Your task to perform on an android device: make emails show in primary in the gmail app Image 0: 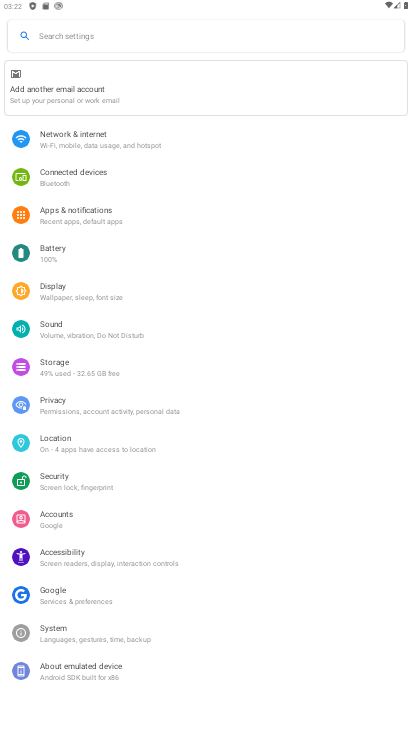
Step 0: press home button
Your task to perform on an android device: make emails show in primary in the gmail app Image 1: 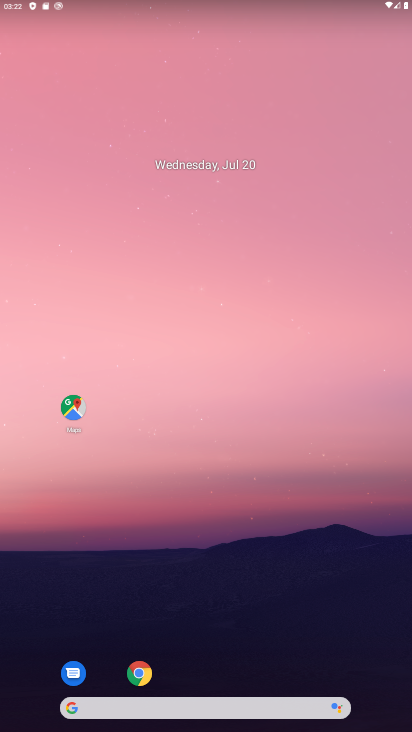
Step 1: drag from (255, 657) to (271, 45)
Your task to perform on an android device: make emails show in primary in the gmail app Image 2: 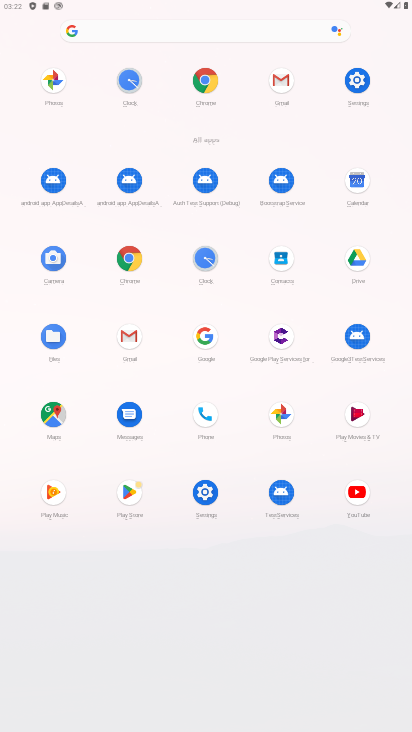
Step 2: click (122, 339)
Your task to perform on an android device: make emails show in primary in the gmail app Image 3: 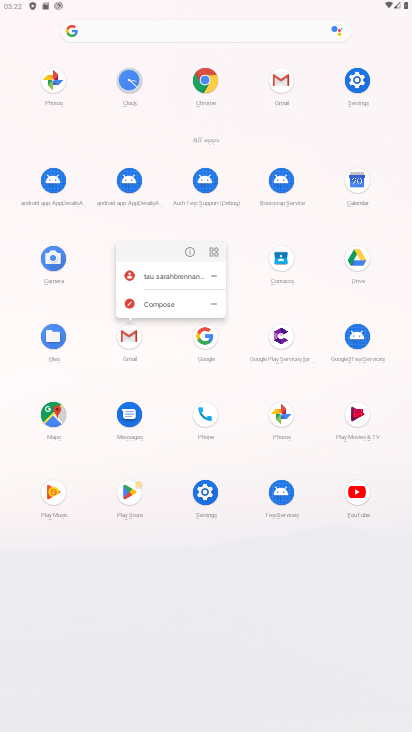
Step 3: click (137, 330)
Your task to perform on an android device: make emails show in primary in the gmail app Image 4: 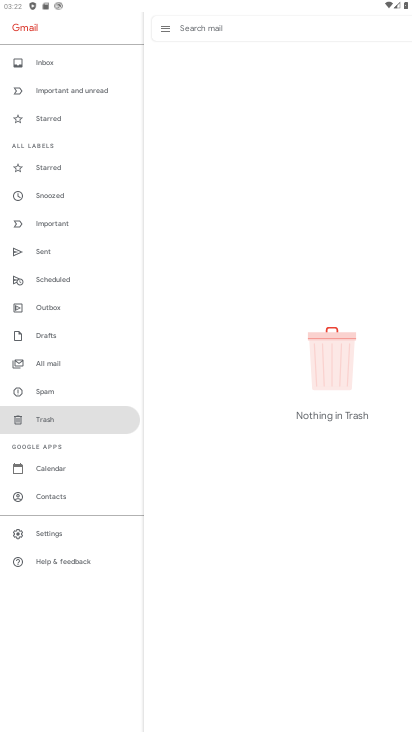
Step 4: click (70, 529)
Your task to perform on an android device: make emails show in primary in the gmail app Image 5: 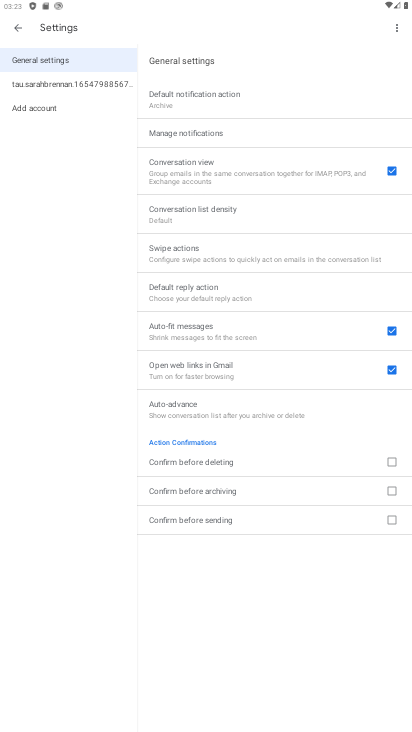
Step 5: click (62, 85)
Your task to perform on an android device: make emails show in primary in the gmail app Image 6: 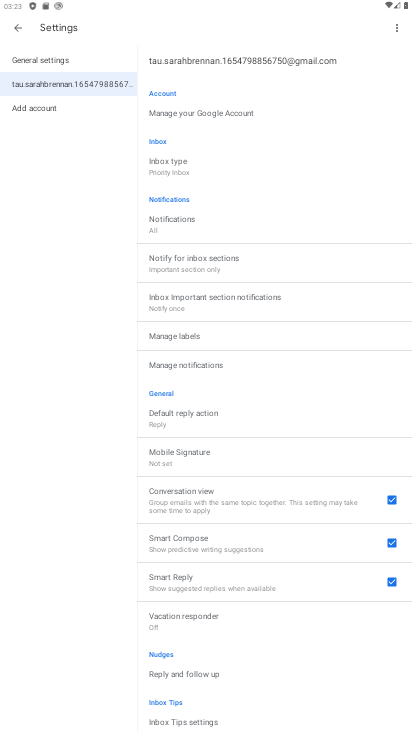
Step 6: task complete